Your task to perform on an android device: Search for seafood restaurants on Google Maps Image 0: 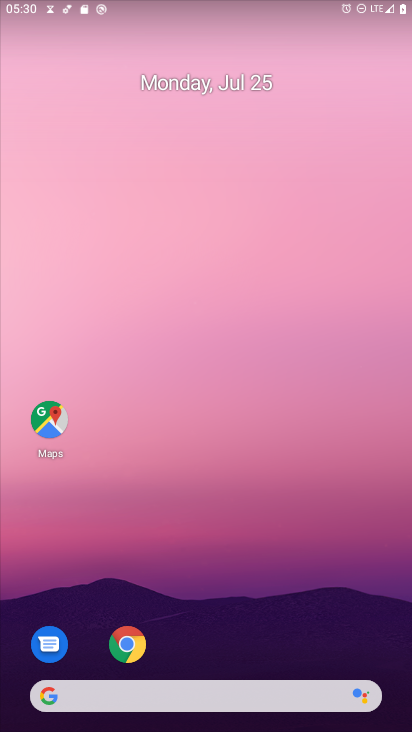
Step 0: press home button
Your task to perform on an android device: Search for seafood restaurants on Google Maps Image 1: 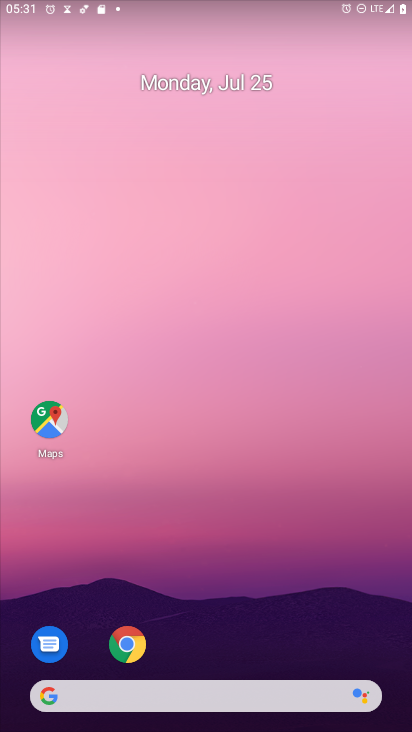
Step 1: click (43, 416)
Your task to perform on an android device: Search for seafood restaurants on Google Maps Image 2: 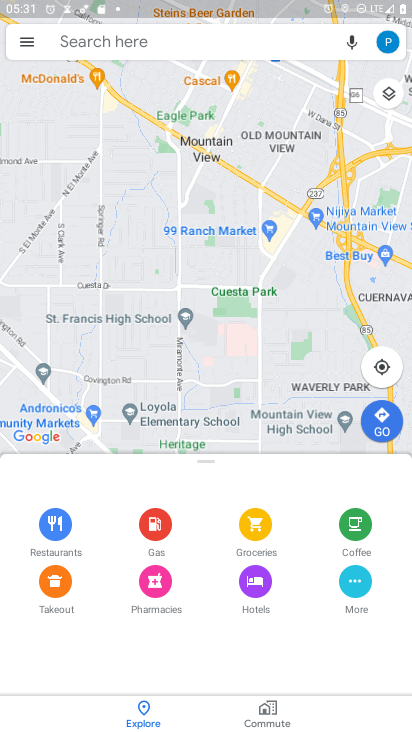
Step 2: click (249, 33)
Your task to perform on an android device: Search for seafood restaurants on Google Maps Image 3: 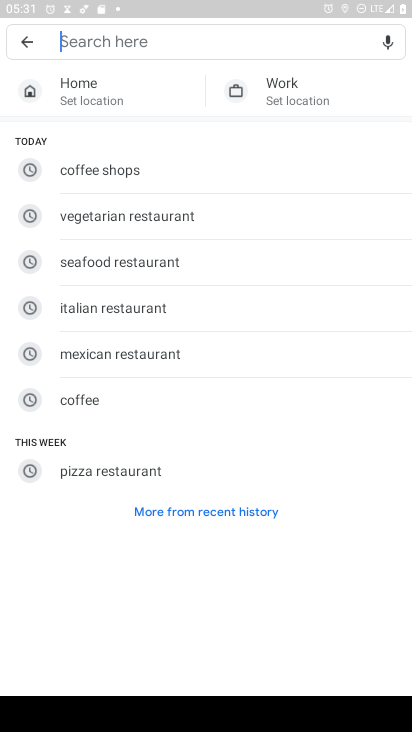
Step 3: click (154, 266)
Your task to perform on an android device: Search for seafood restaurants on Google Maps Image 4: 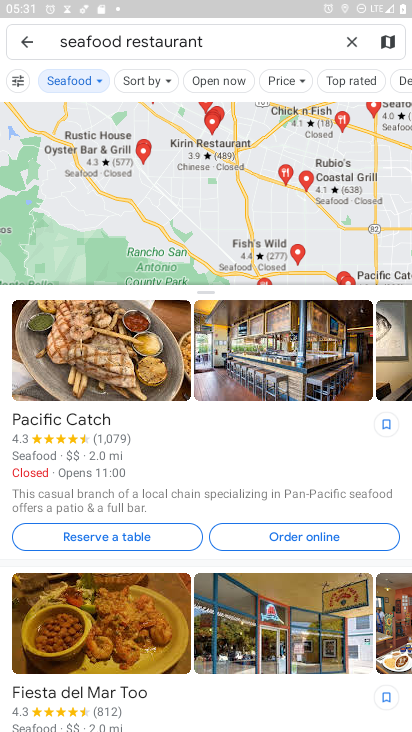
Step 4: task complete